Your task to perform on an android device: Show me recent news Image 0: 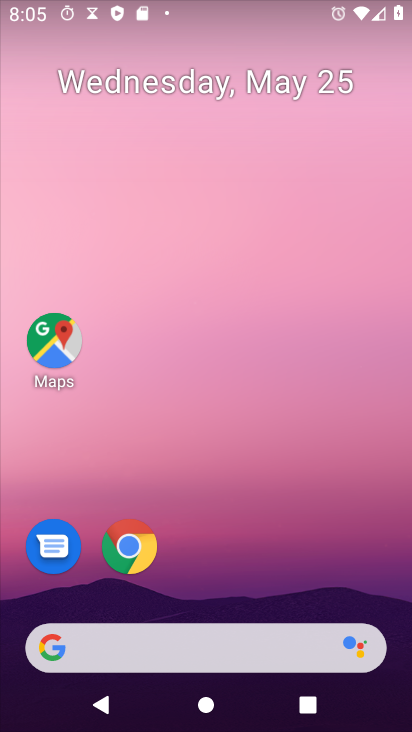
Step 0: drag from (197, 591) to (228, 332)
Your task to perform on an android device: Show me recent news Image 1: 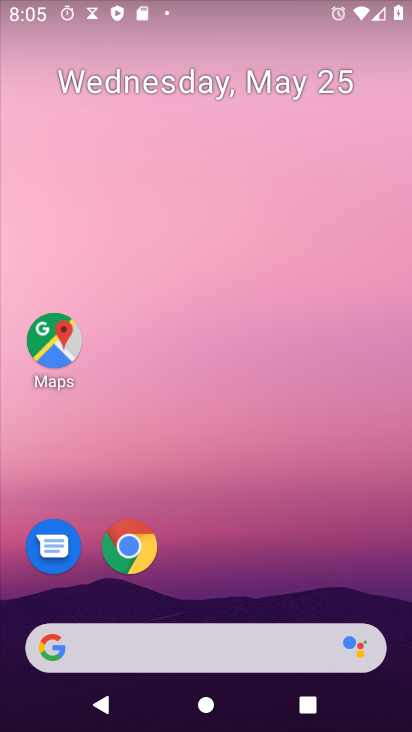
Step 1: drag from (194, 531) to (208, 17)
Your task to perform on an android device: Show me recent news Image 2: 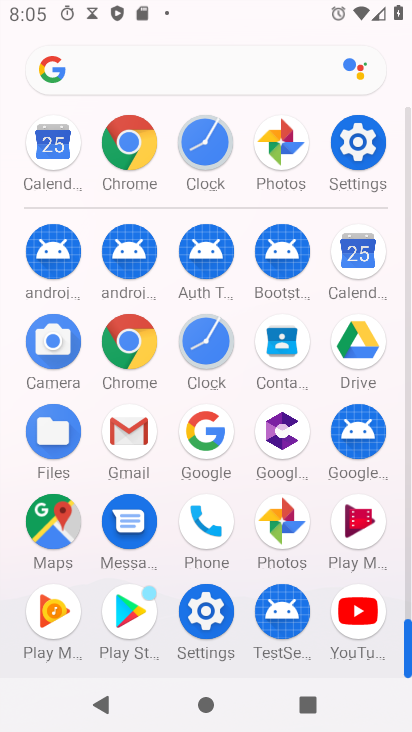
Step 2: click (210, 510)
Your task to perform on an android device: Show me recent news Image 3: 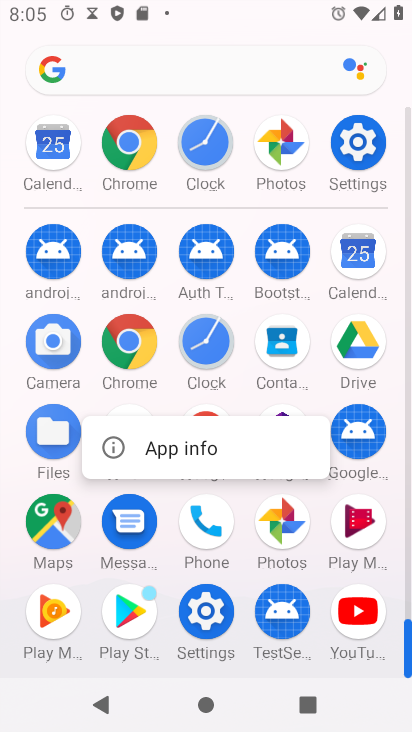
Step 3: press back button
Your task to perform on an android device: Show me recent news Image 4: 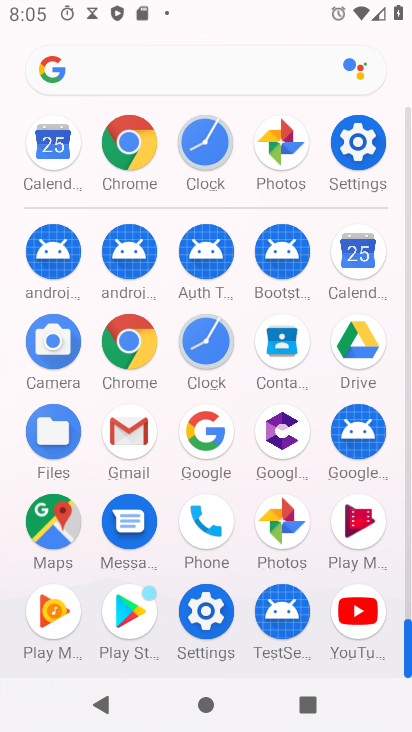
Step 4: click (219, 454)
Your task to perform on an android device: Show me recent news Image 5: 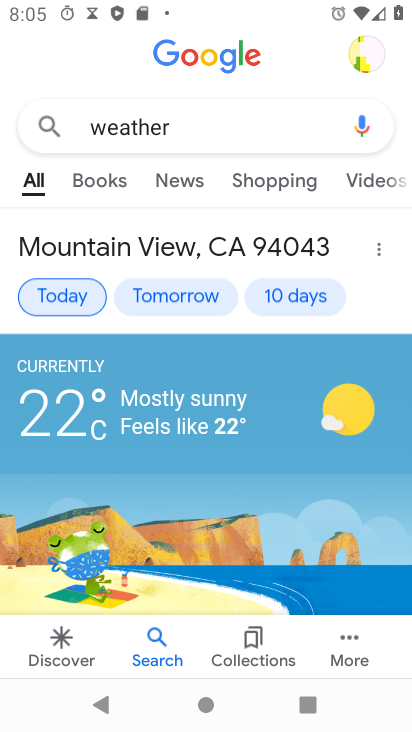
Step 5: click (211, 130)
Your task to perform on an android device: Show me recent news Image 6: 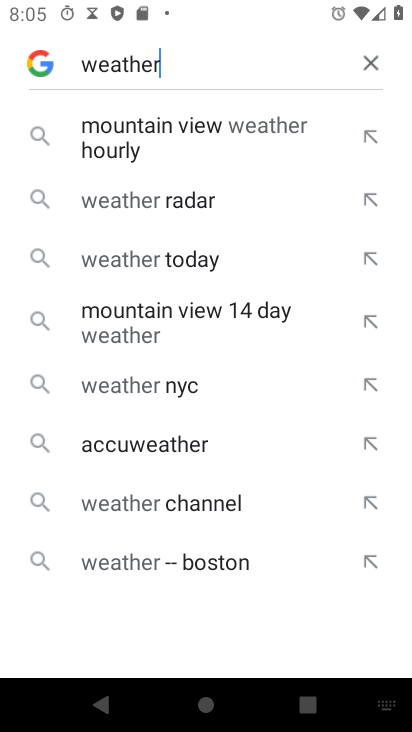
Step 6: click (378, 63)
Your task to perform on an android device: Show me recent news Image 7: 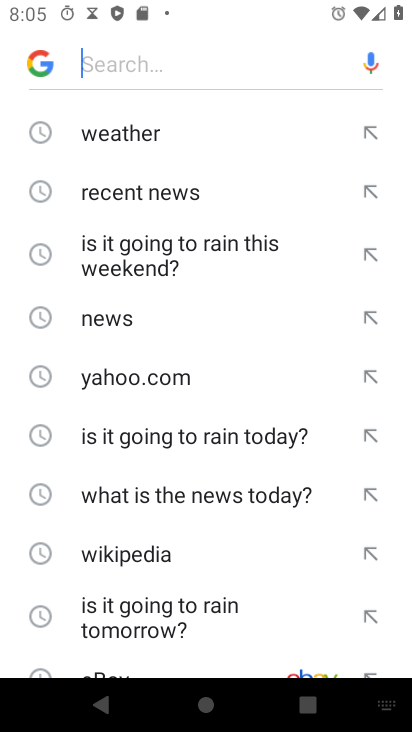
Step 7: click (158, 199)
Your task to perform on an android device: Show me recent news Image 8: 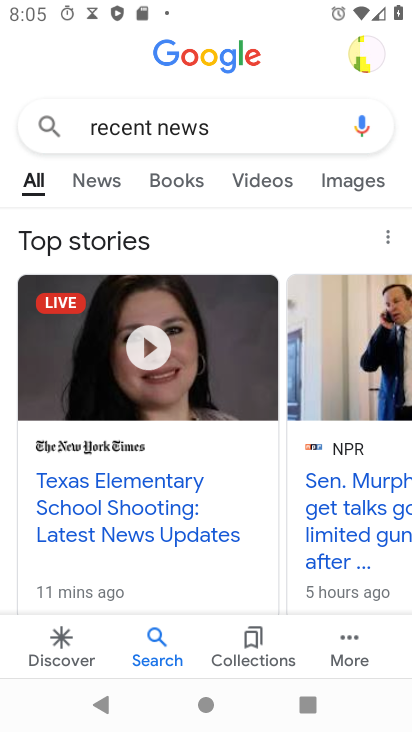
Step 8: task complete